Your task to perform on an android device: Go to eBay Image 0: 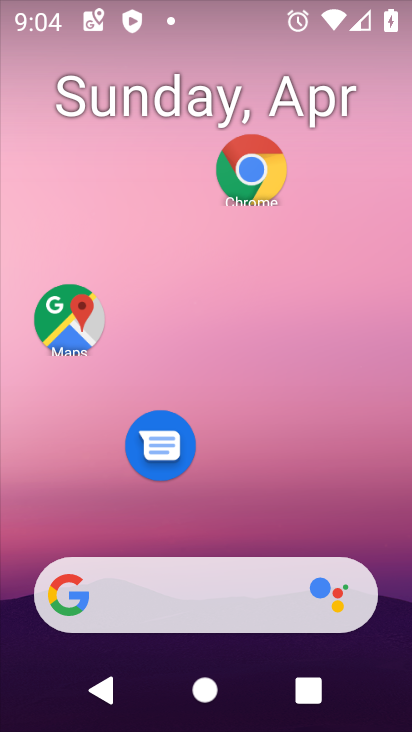
Step 0: drag from (237, 442) to (253, 52)
Your task to perform on an android device: Go to eBay Image 1: 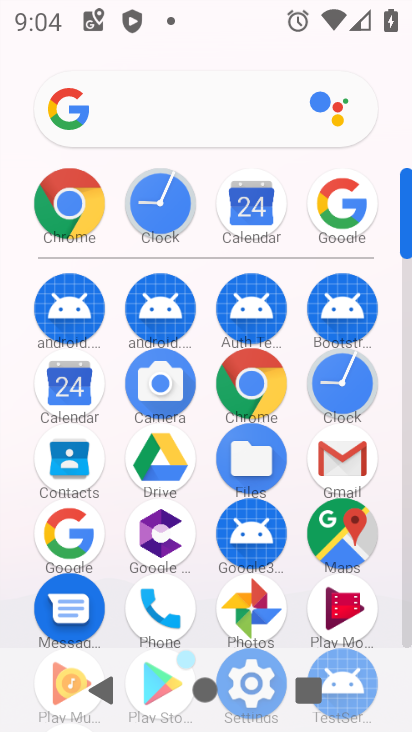
Step 1: click (340, 214)
Your task to perform on an android device: Go to eBay Image 2: 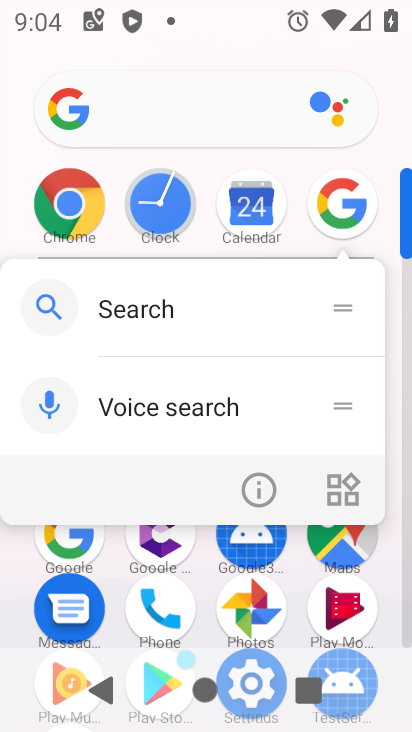
Step 2: click (350, 208)
Your task to perform on an android device: Go to eBay Image 3: 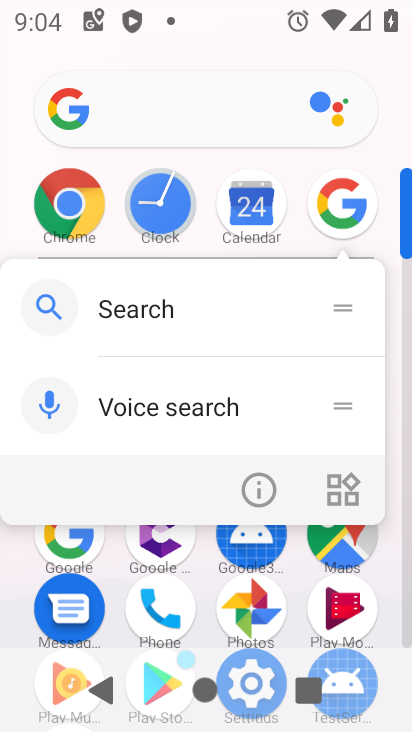
Step 3: click (350, 208)
Your task to perform on an android device: Go to eBay Image 4: 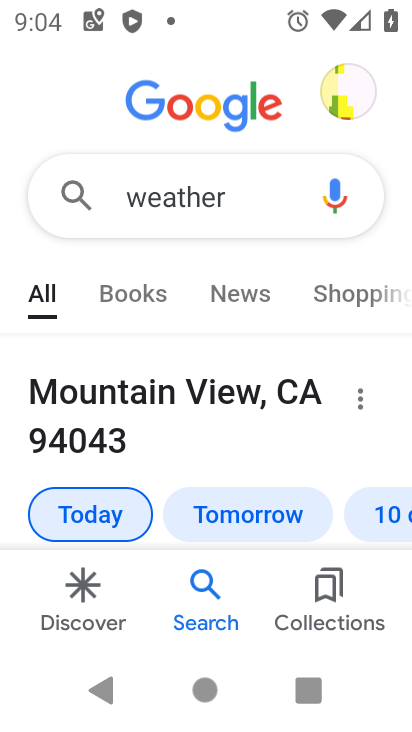
Step 4: click (270, 207)
Your task to perform on an android device: Go to eBay Image 5: 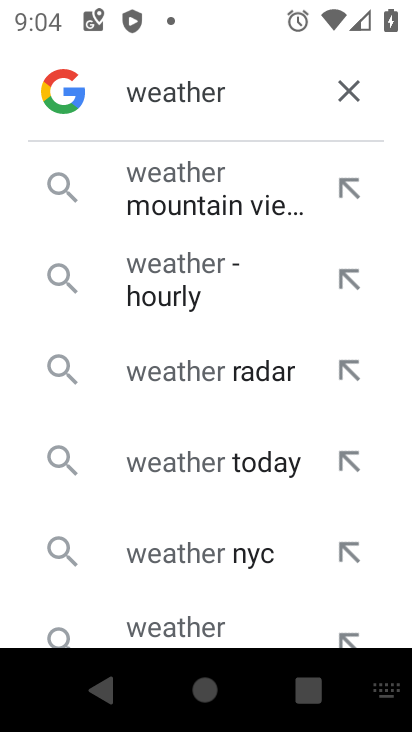
Step 5: click (354, 77)
Your task to perform on an android device: Go to eBay Image 6: 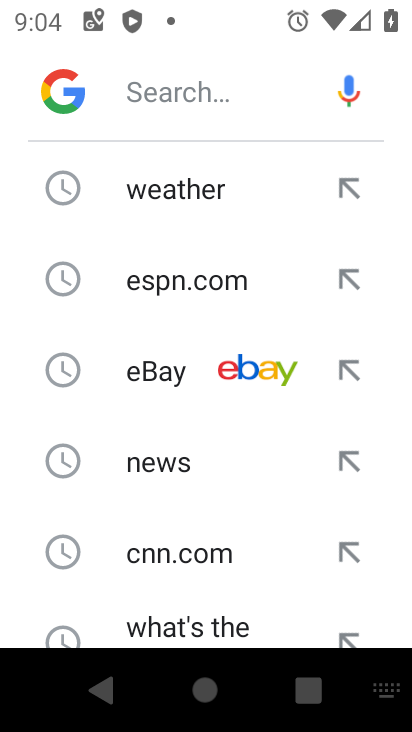
Step 6: click (166, 375)
Your task to perform on an android device: Go to eBay Image 7: 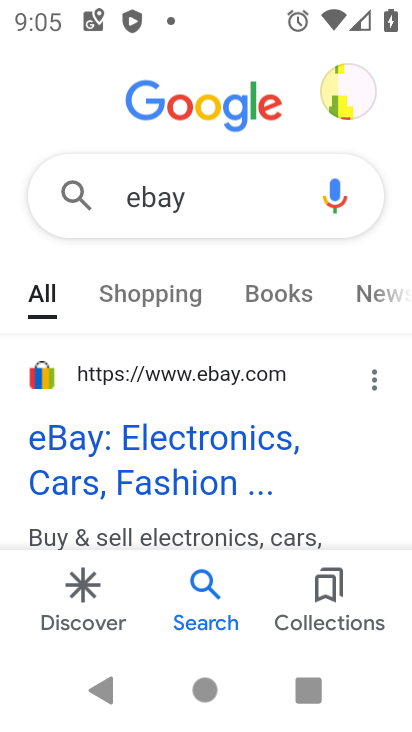
Step 7: task complete